Your task to perform on an android device: Open Google Chrome and open the bookmarks view Image 0: 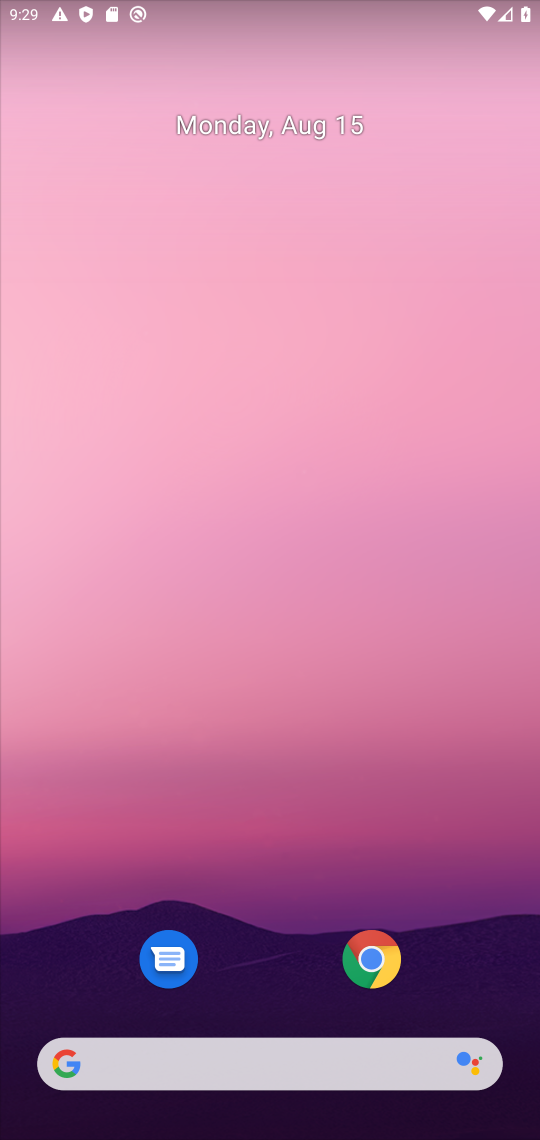
Step 0: drag from (241, 1017) to (176, 123)
Your task to perform on an android device: Open Google Chrome and open the bookmarks view Image 1: 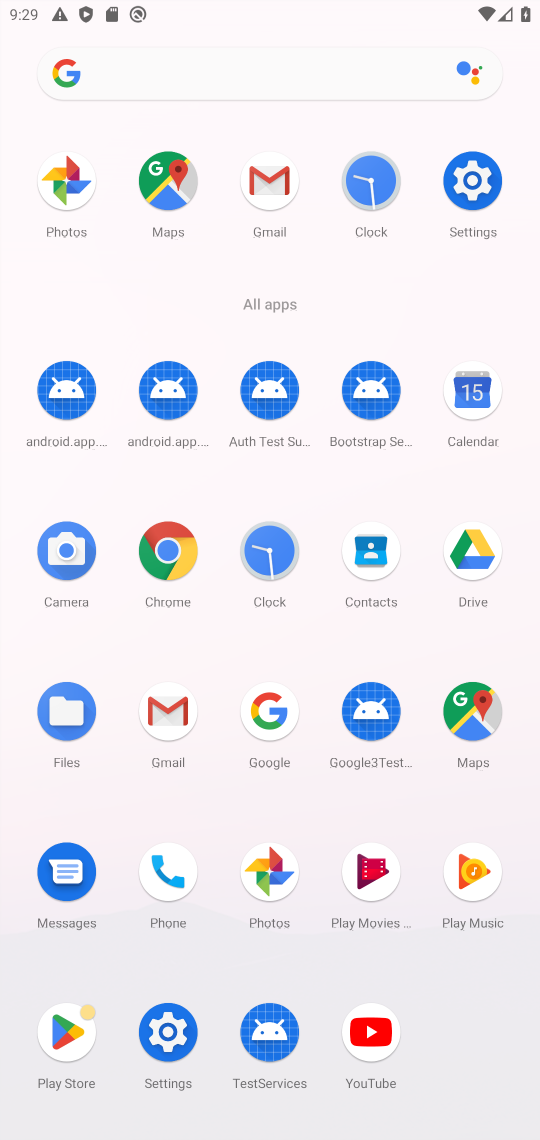
Step 1: click (165, 561)
Your task to perform on an android device: Open Google Chrome and open the bookmarks view Image 2: 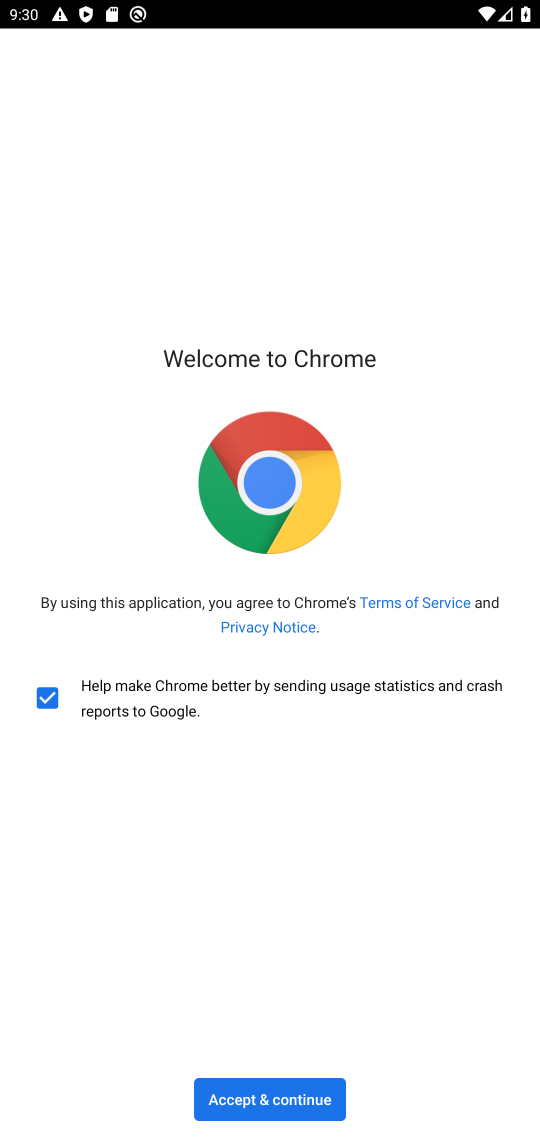
Step 2: click (276, 1077)
Your task to perform on an android device: Open Google Chrome and open the bookmarks view Image 3: 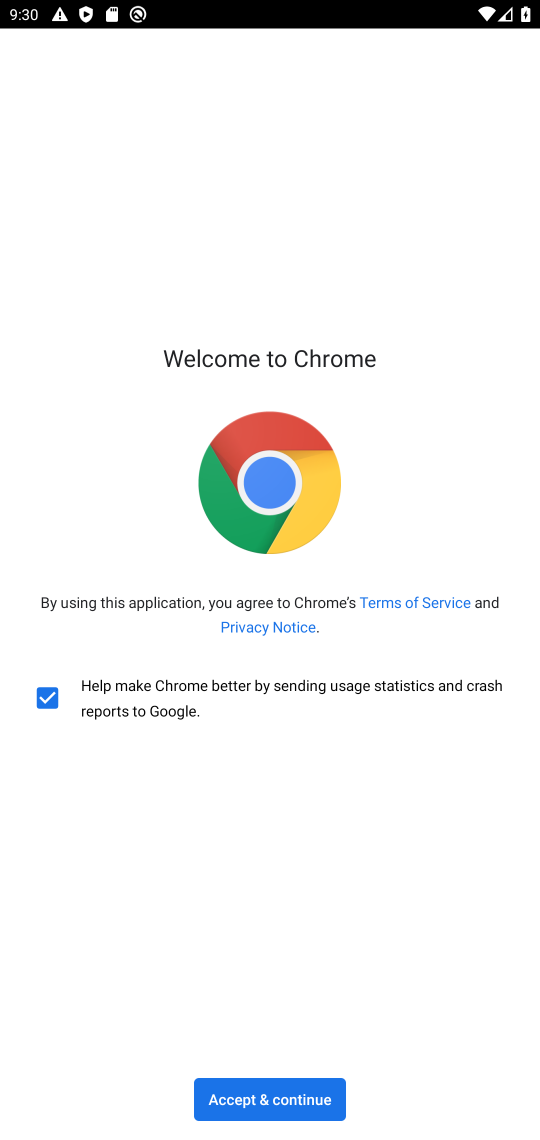
Step 3: click (269, 1079)
Your task to perform on an android device: Open Google Chrome and open the bookmarks view Image 4: 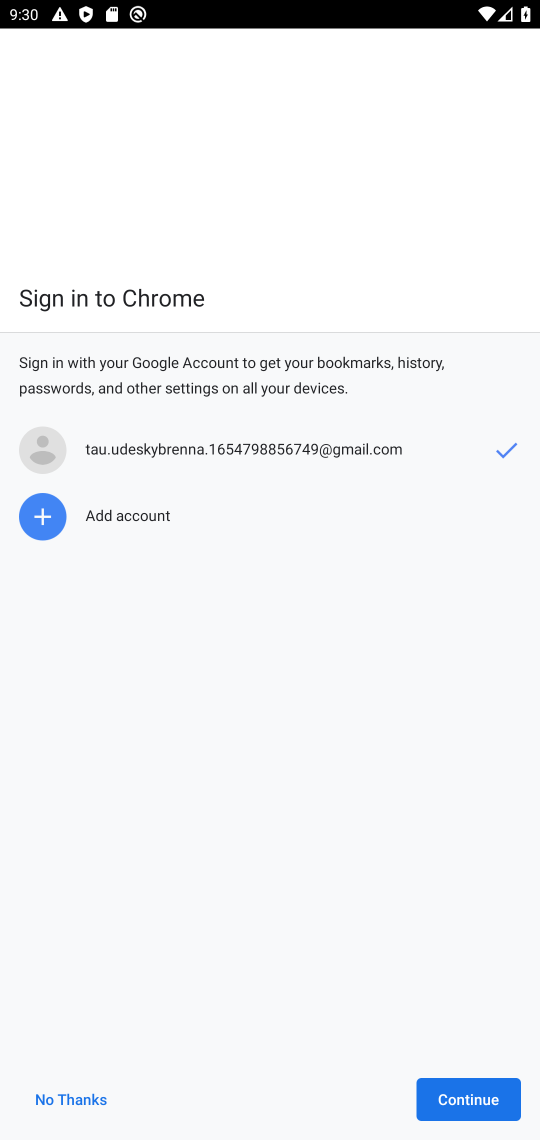
Step 4: click (452, 1103)
Your task to perform on an android device: Open Google Chrome and open the bookmarks view Image 5: 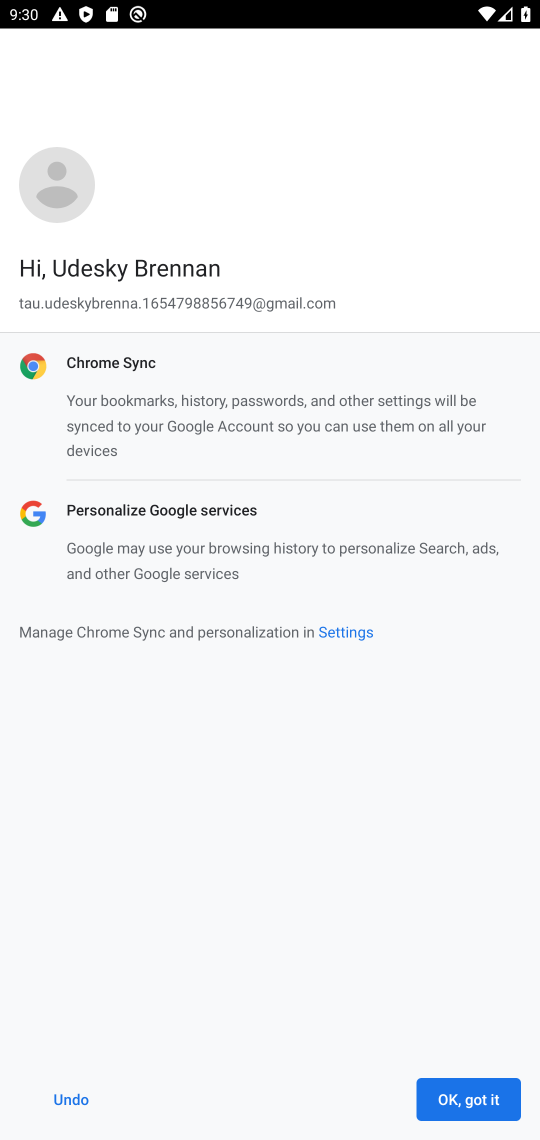
Step 5: click (472, 1096)
Your task to perform on an android device: Open Google Chrome and open the bookmarks view Image 6: 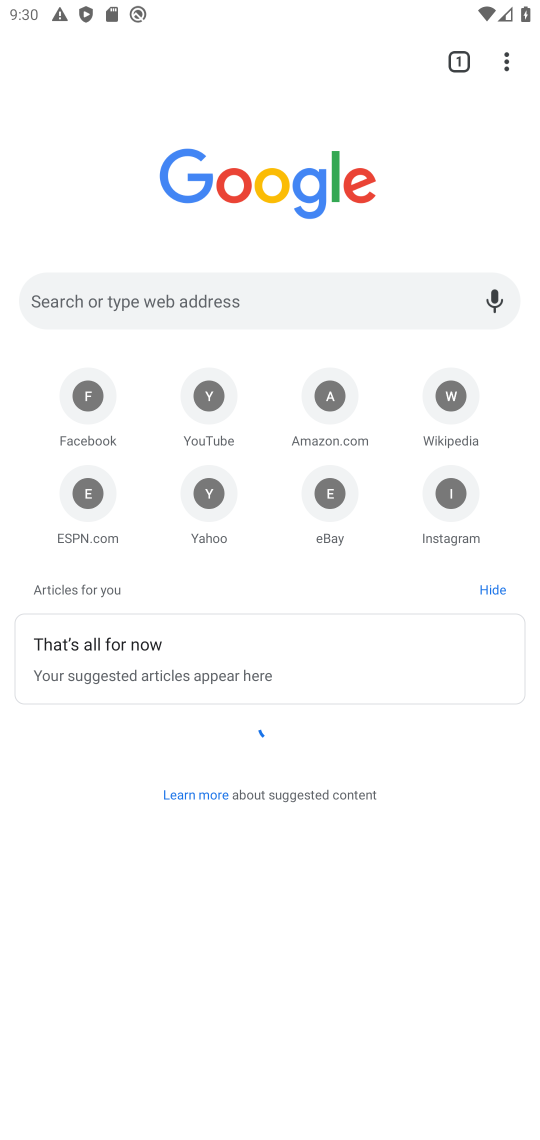
Step 6: click (516, 64)
Your task to perform on an android device: Open Google Chrome and open the bookmarks view Image 7: 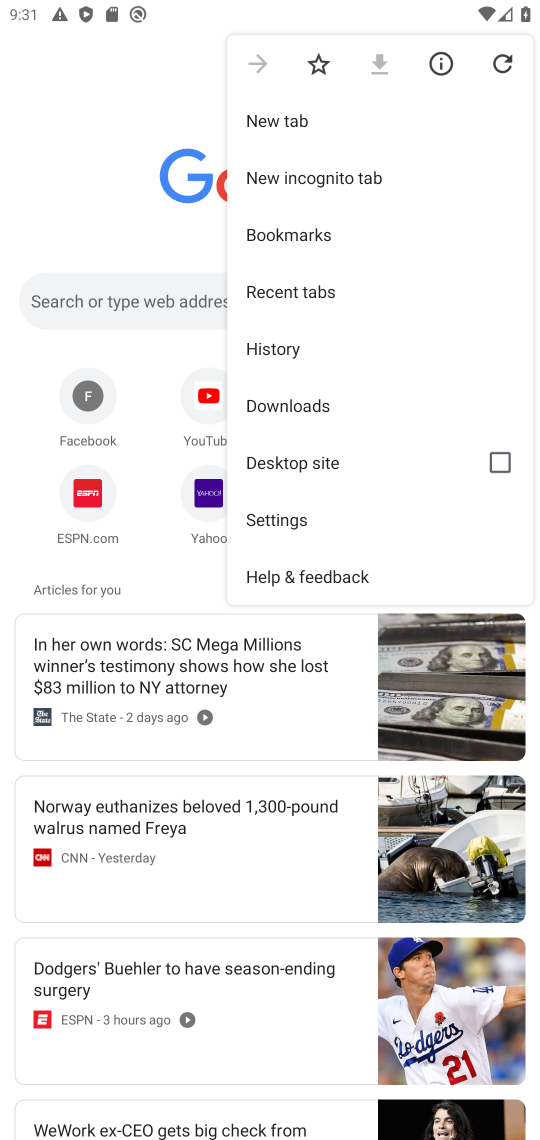
Step 7: click (270, 234)
Your task to perform on an android device: Open Google Chrome and open the bookmarks view Image 8: 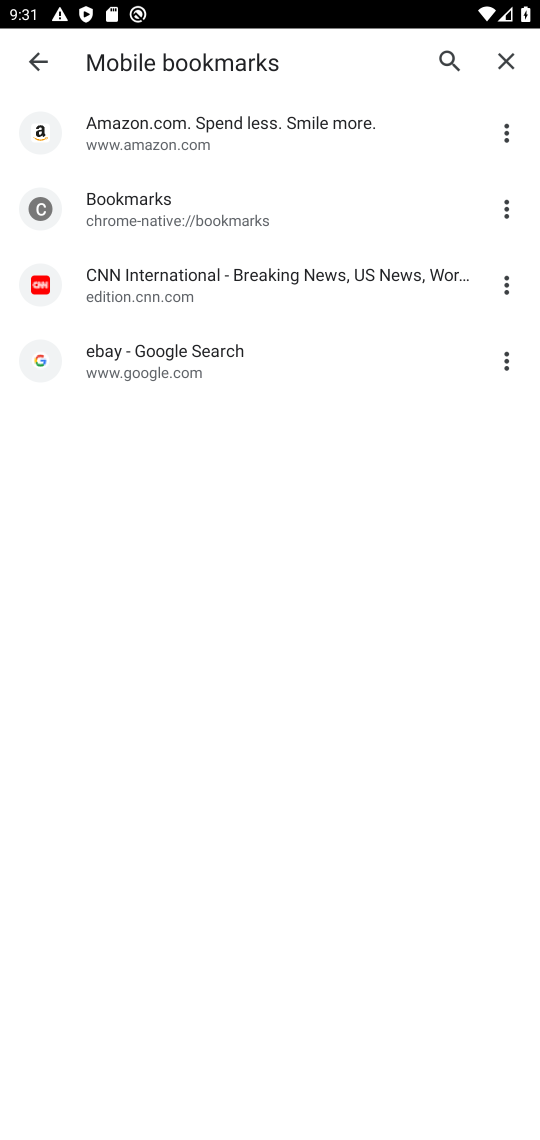
Step 8: task complete